Your task to perform on an android device: change the clock style Image 0: 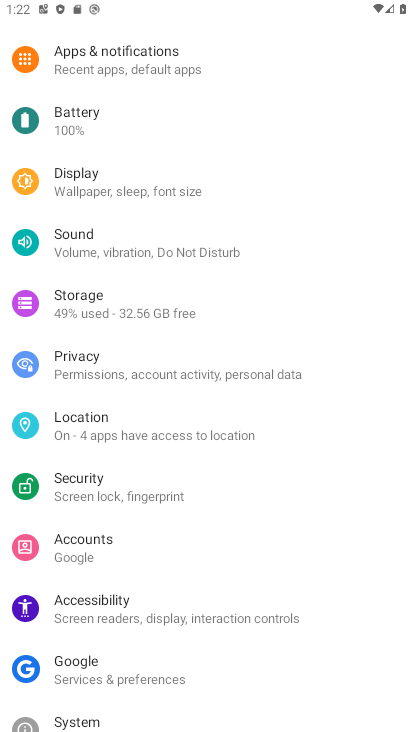
Step 0: press home button
Your task to perform on an android device: change the clock style Image 1: 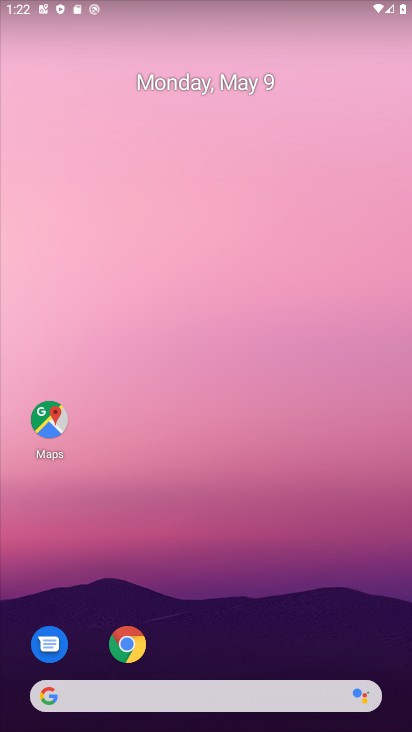
Step 1: drag from (233, 625) to (258, 119)
Your task to perform on an android device: change the clock style Image 2: 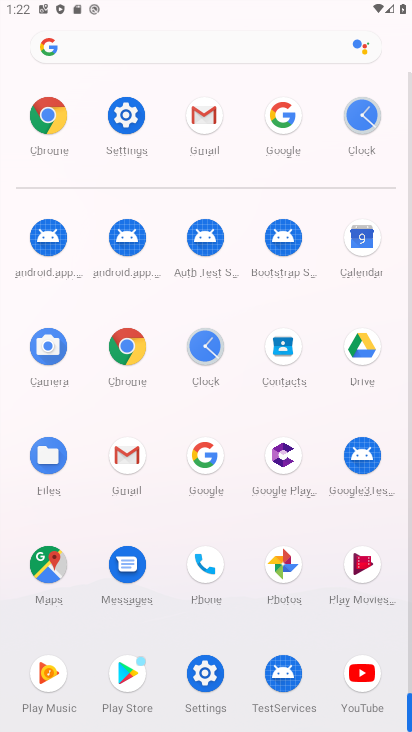
Step 2: click (368, 127)
Your task to perform on an android device: change the clock style Image 3: 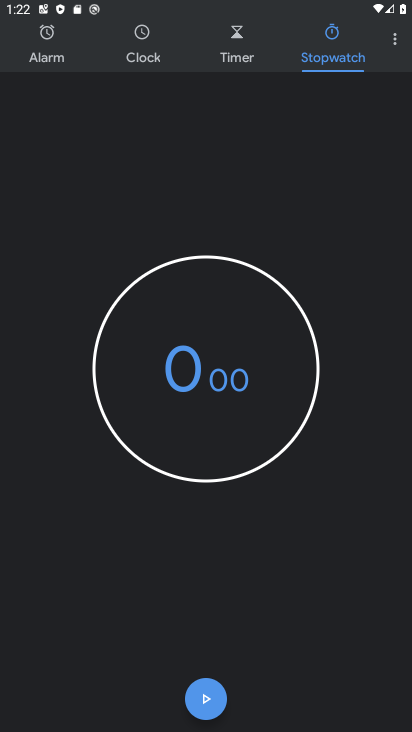
Step 3: click (398, 36)
Your task to perform on an android device: change the clock style Image 4: 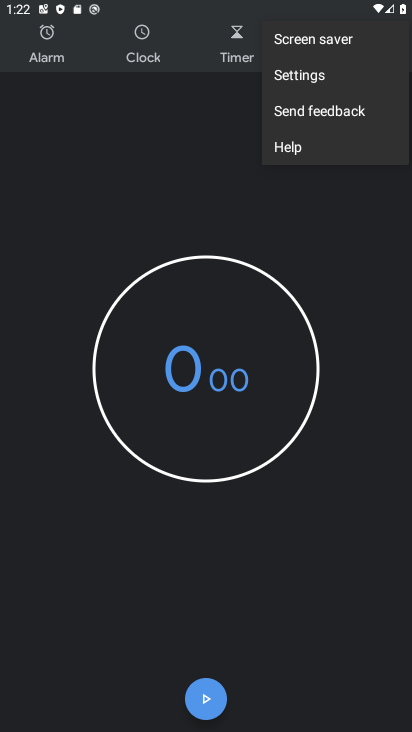
Step 4: click (299, 72)
Your task to perform on an android device: change the clock style Image 5: 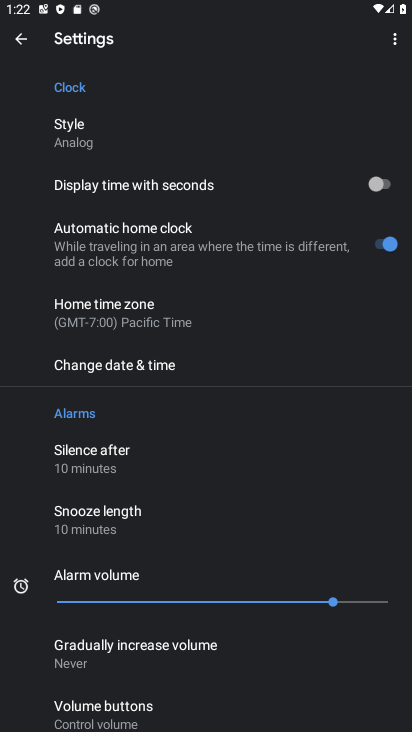
Step 5: click (62, 130)
Your task to perform on an android device: change the clock style Image 6: 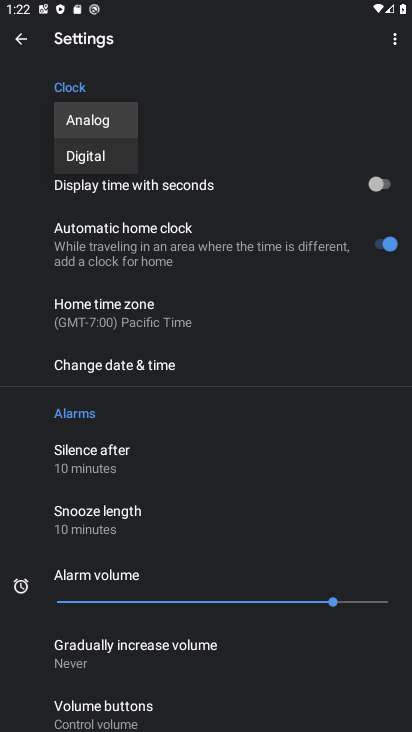
Step 6: click (79, 153)
Your task to perform on an android device: change the clock style Image 7: 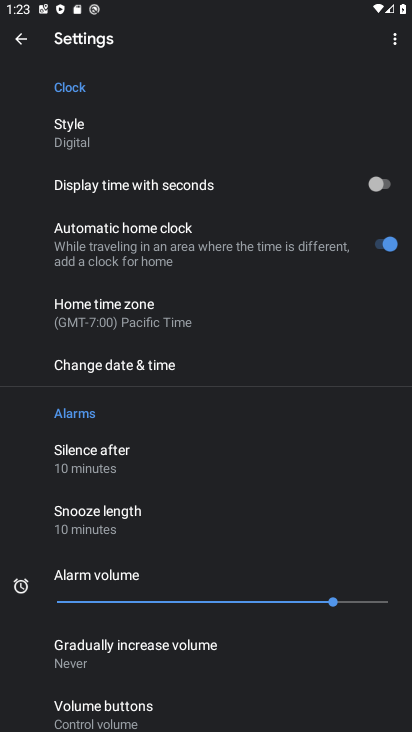
Step 7: task complete